Your task to perform on an android device: turn off wifi Image 0: 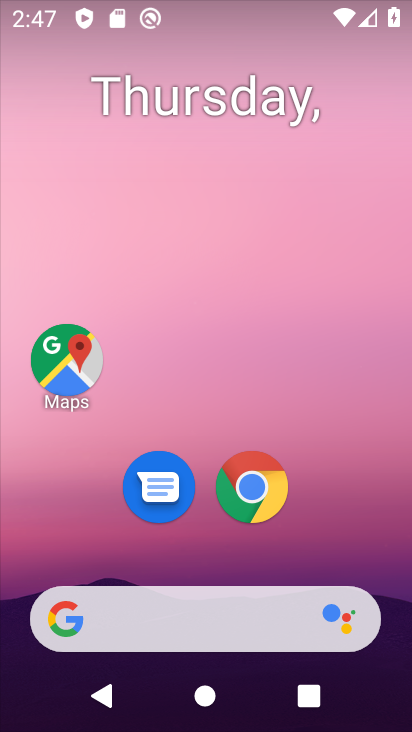
Step 0: drag from (369, 404) to (330, 85)
Your task to perform on an android device: turn off wifi Image 1: 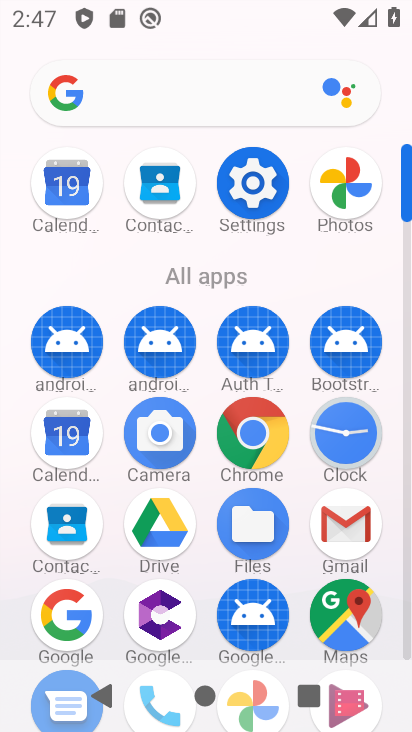
Step 1: click (231, 186)
Your task to perform on an android device: turn off wifi Image 2: 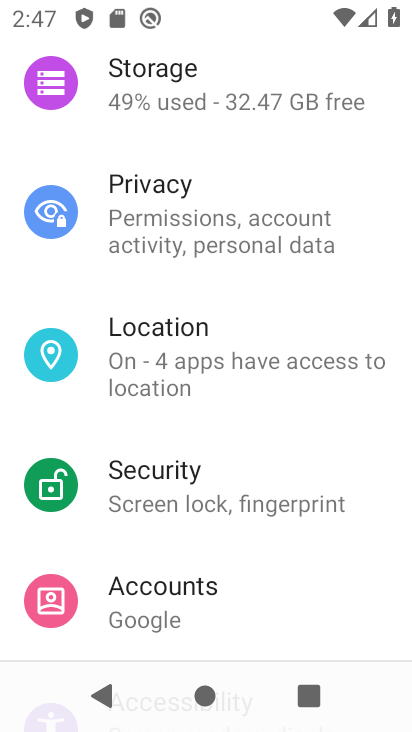
Step 2: drag from (230, 178) to (255, 545)
Your task to perform on an android device: turn off wifi Image 3: 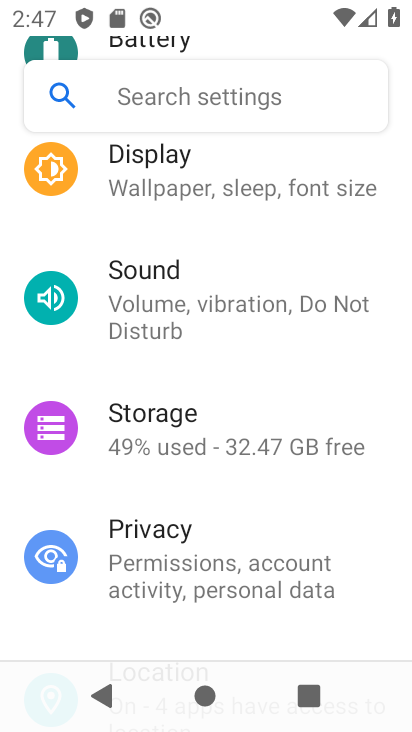
Step 3: drag from (241, 186) to (266, 634)
Your task to perform on an android device: turn off wifi Image 4: 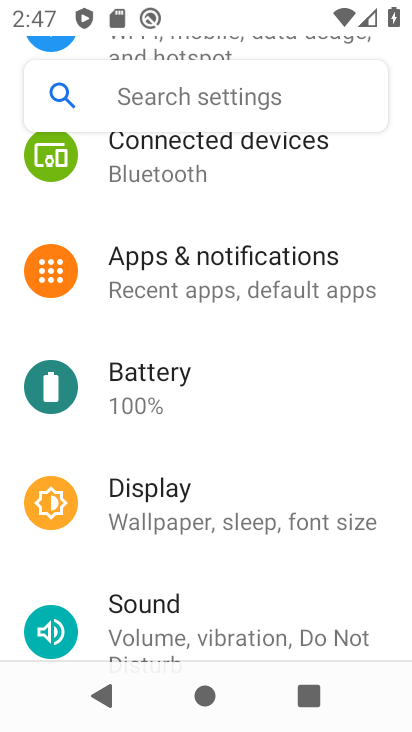
Step 4: drag from (284, 212) to (287, 647)
Your task to perform on an android device: turn off wifi Image 5: 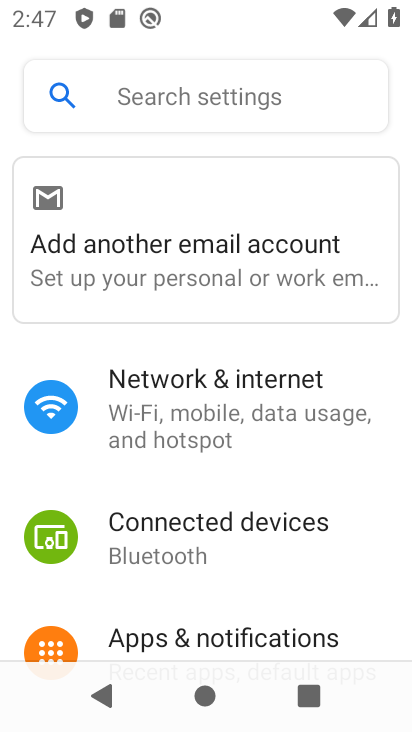
Step 5: click (196, 403)
Your task to perform on an android device: turn off wifi Image 6: 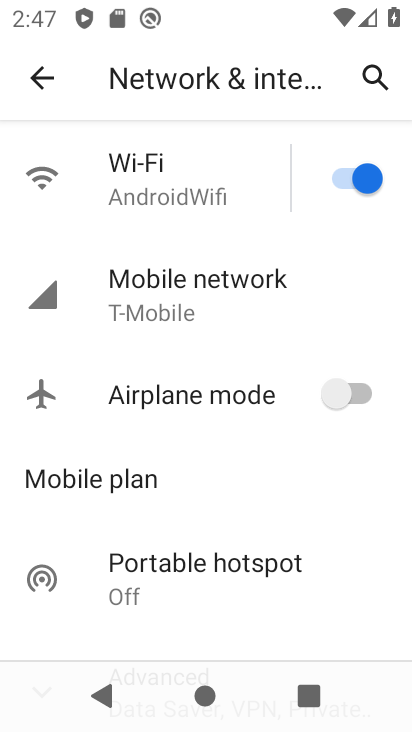
Step 6: click (358, 183)
Your task to perform on an android device: turn off wifi Image 7: 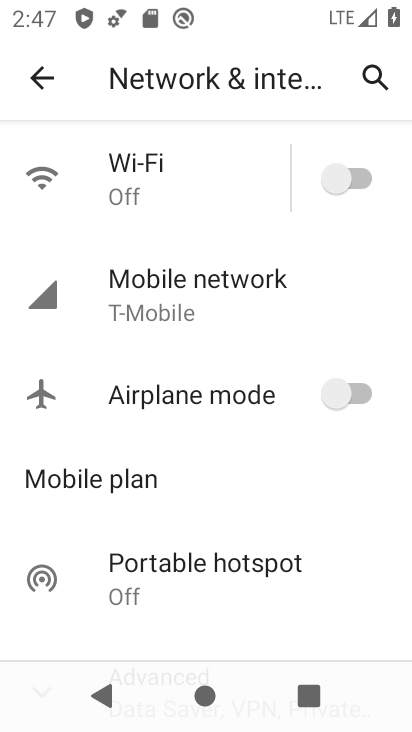
Step 7: task complete